Your task to perform on an android device: What's the weather going to be tomorrow? Image 0: 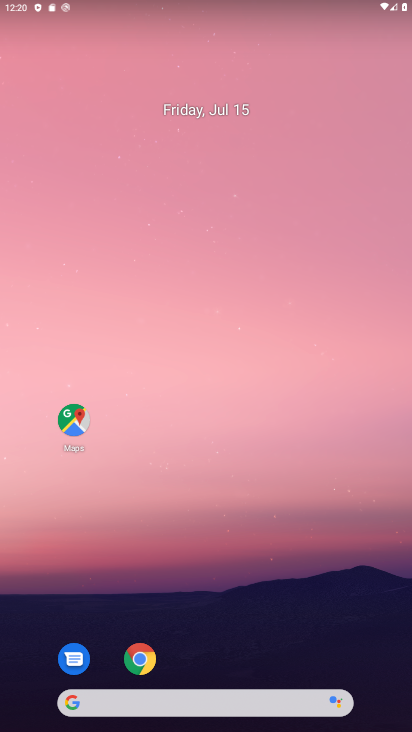
Step 0: drag from (198, 643) to (161, 234)
Your task to perform on an android device: What's the weather going to be tomorrow? Image 1: 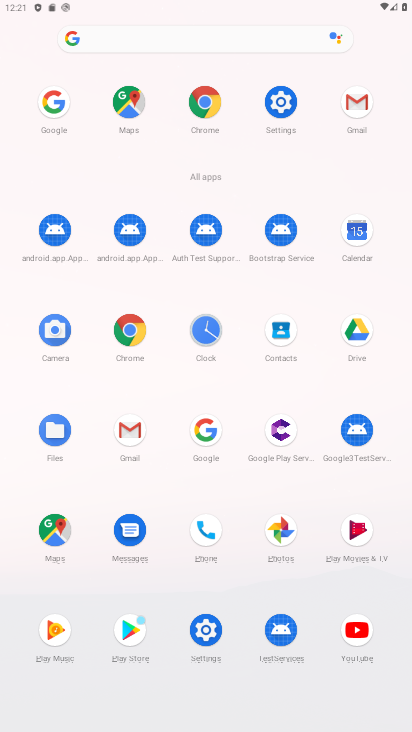
Step 1: click (195, 436)
Your task to perform on an android device: What's the weather going to be tomorrow? Image 2: 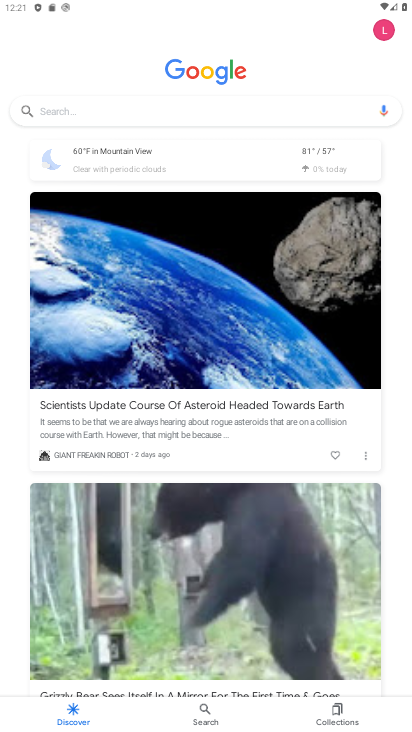
Step 2: click (190, 105)
Your task to perform on an android device: What's the weather going to be tomorrow? Image 3: 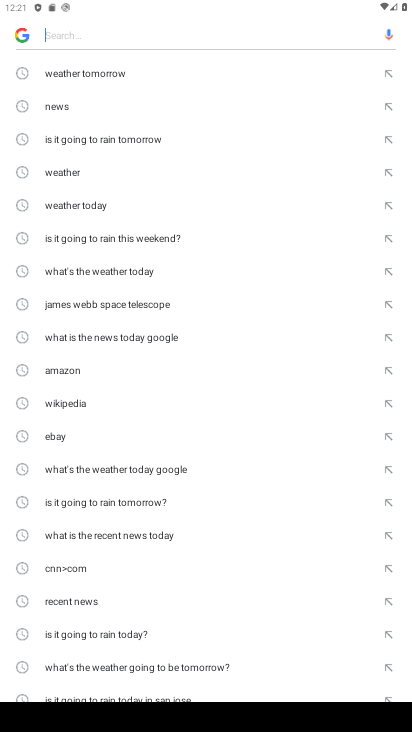
Step 3: type "weather"
Your task to perform on an android device: What's the weather going to be tomorrow? Image 4: 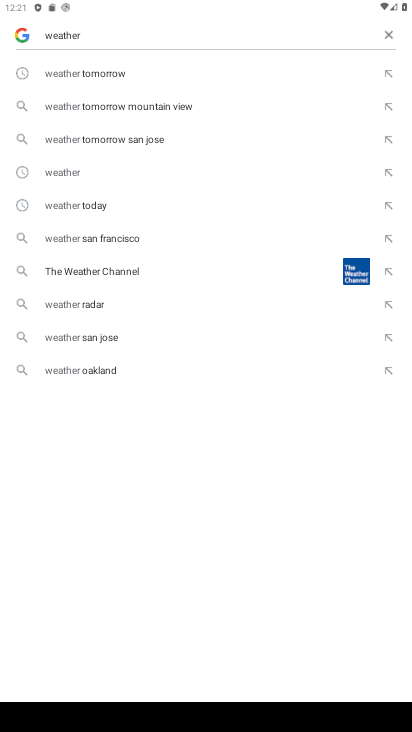
Step 4: click (90, 179)
Your task to perform on an android device: What's the weather going to be tomorrow? Image 5: 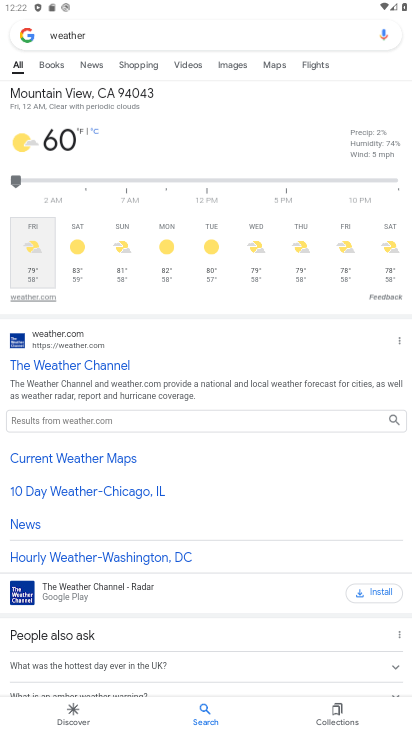
Step 5: task complete